Your task to perform on an android device: open app "DoorDash - Food Delivery" Image 0: 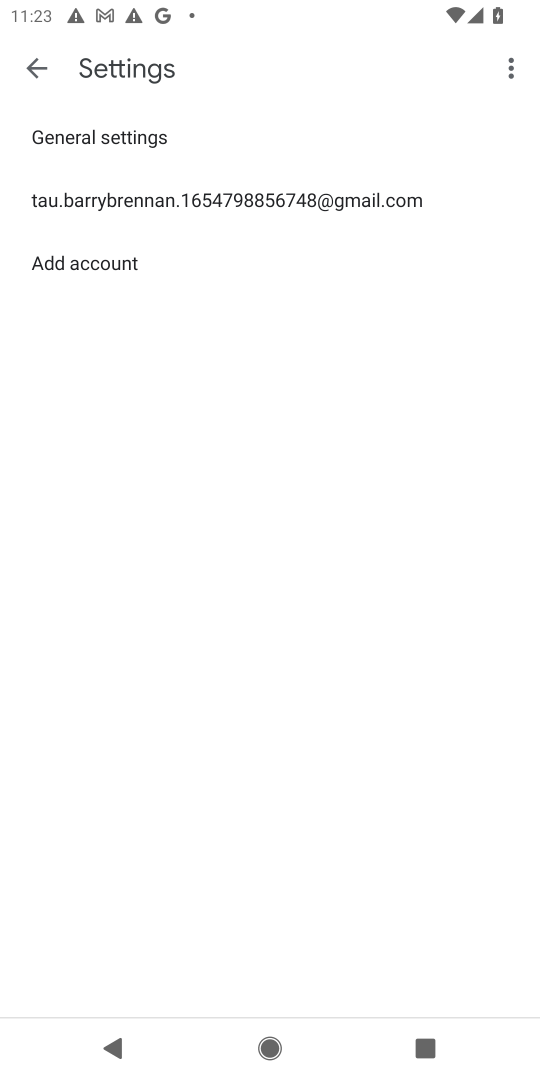
Step 0: press home button
Your task to perform on an android device: open app "DoorDash - Food Delivery" Image 1: 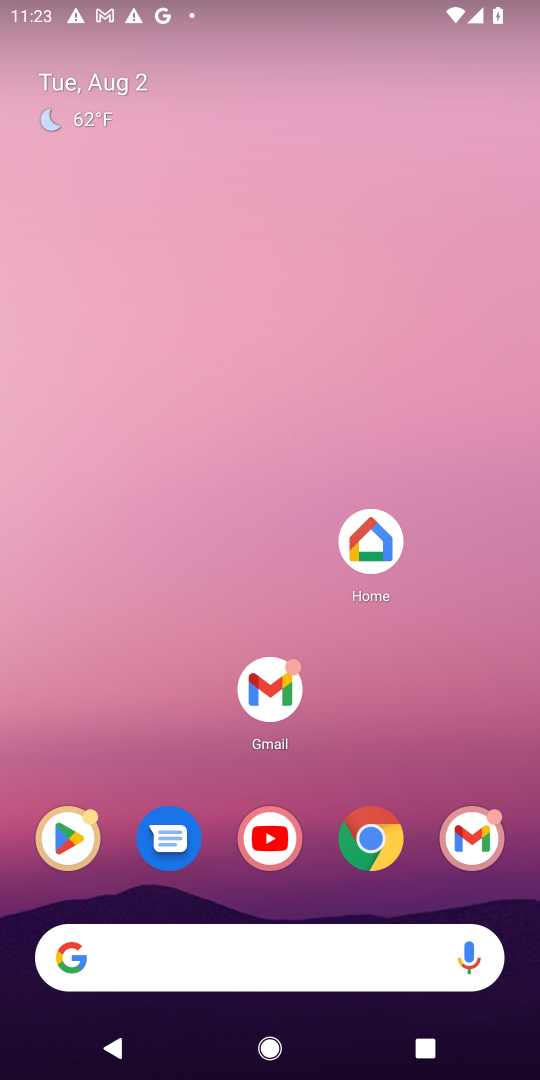
Step 1: drag from (399, 743) to (427, 181)
Your task to perform on an android device: open app "DoorDash - Food Delivery" Image 2: 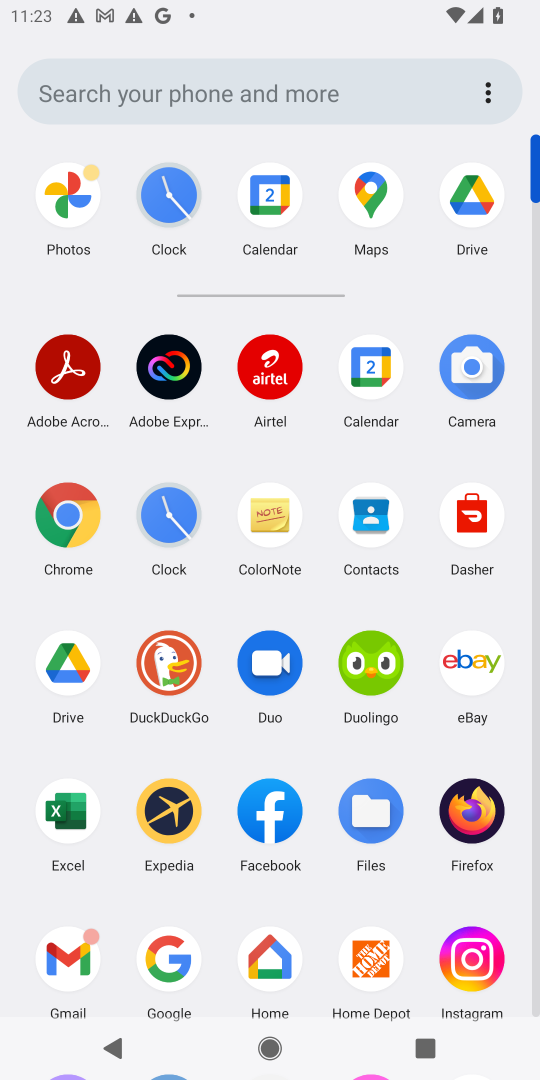
Step 2: drag from (407, 881) to (414, 555)
Your task to perform on an android device: open app "DoorDash - Food Delivery" Image 3: 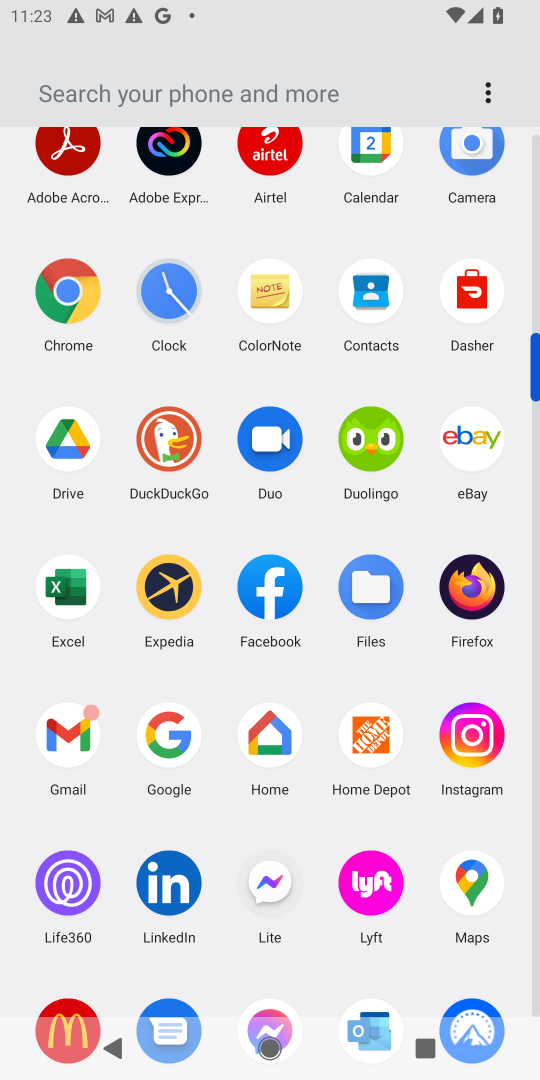
Step 3: drag from (413, 940) to (413, 604)
Your task to perform on an android device: open app "DoorDash - Food Delivery" Image 4: 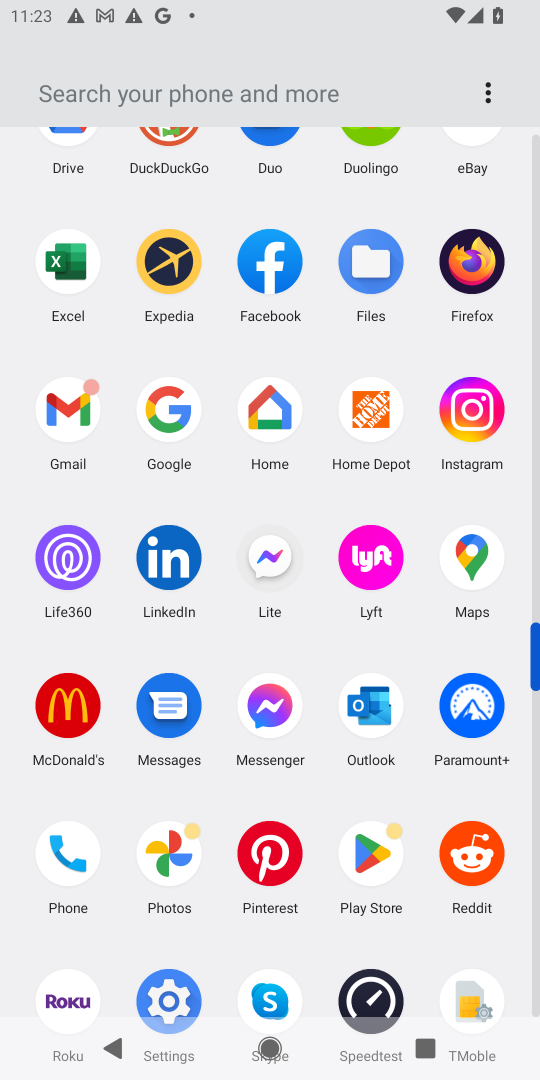
Step 4: click (369, 850)
Your task to perform on an android device: open app "DoorDash - Food Delivery" Image 5: 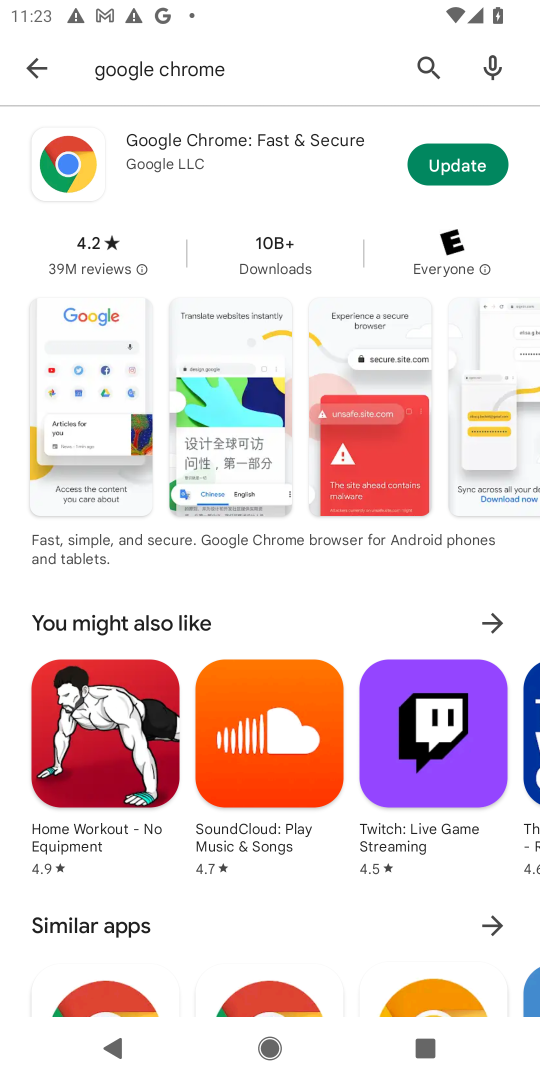
Step 5: click (423, 57)
Your task to perform on an android device: open app "DoorDash - Food Delivery" Image 6: 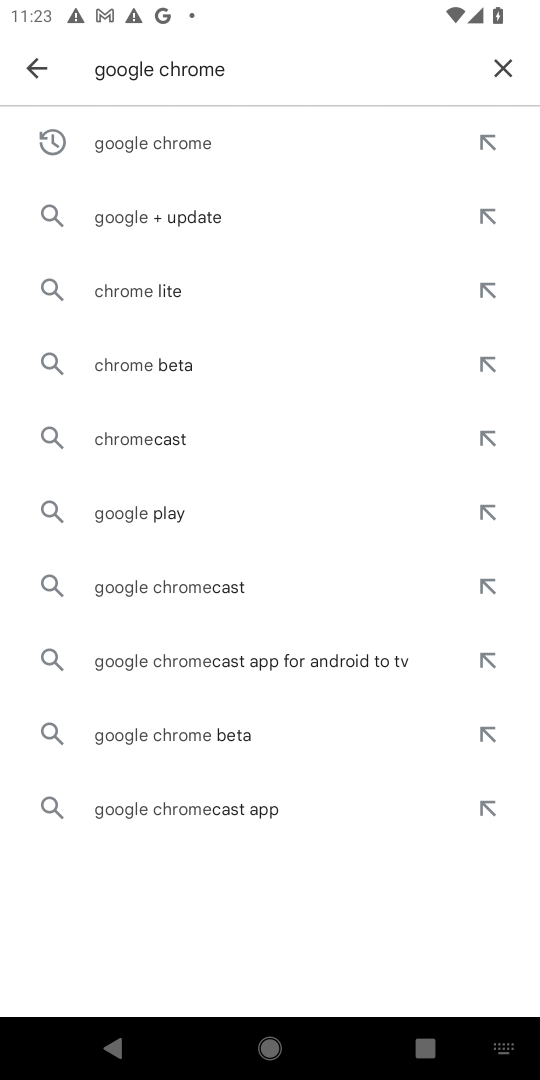
Step 6: click (497, 69)
Your task to perform on an android device: open app "DoorDash - Food Delivery" Image 7: 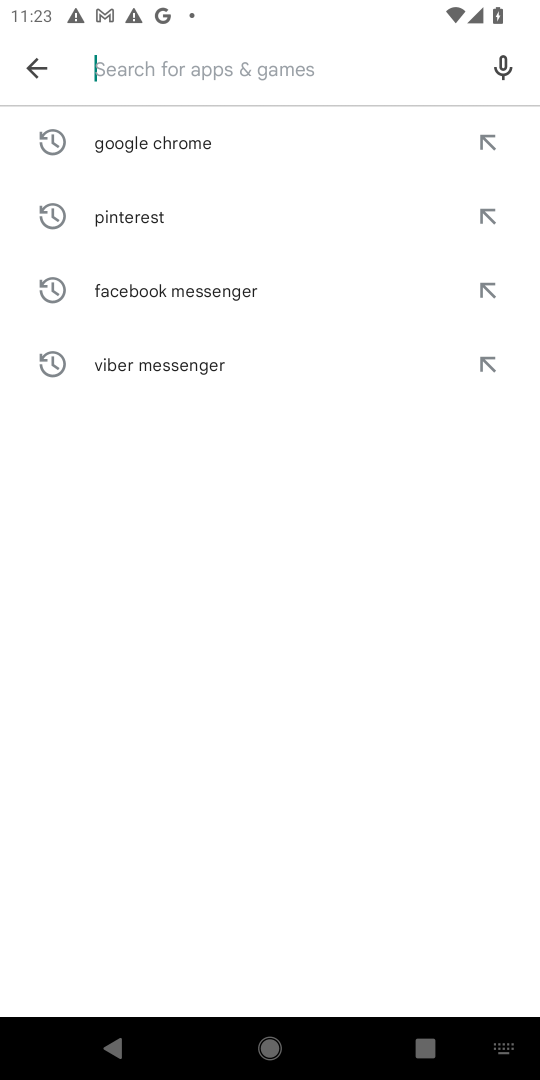
Step 7: click (344, 68)
Your task to perform on an android device: open app "DoorDash - Food Delivery" Image 8: 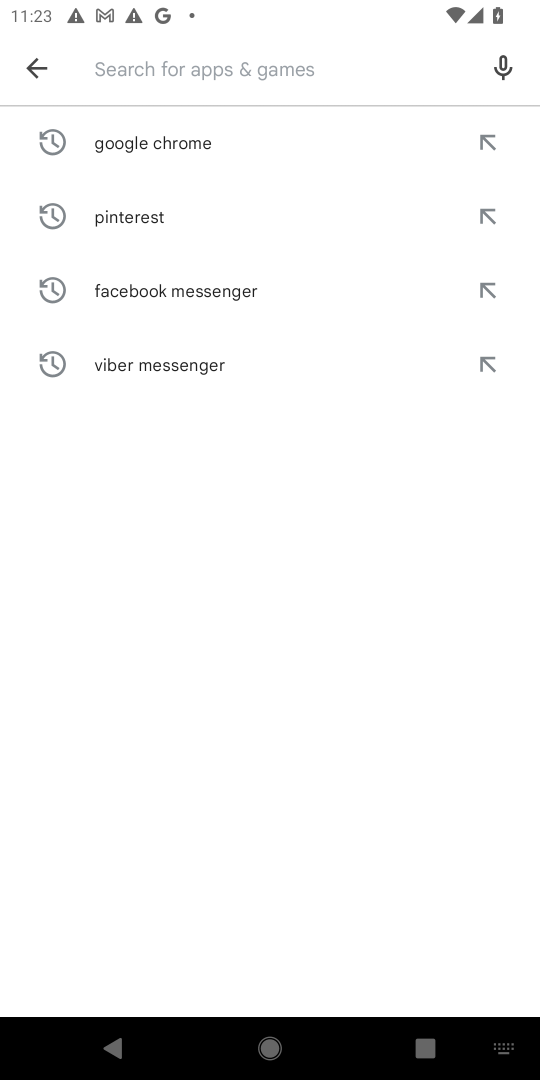
Step 8: type "doordash food delivery"
Your task to perform on an android device: open app "DoorDash - Food Delivery" Image 9: 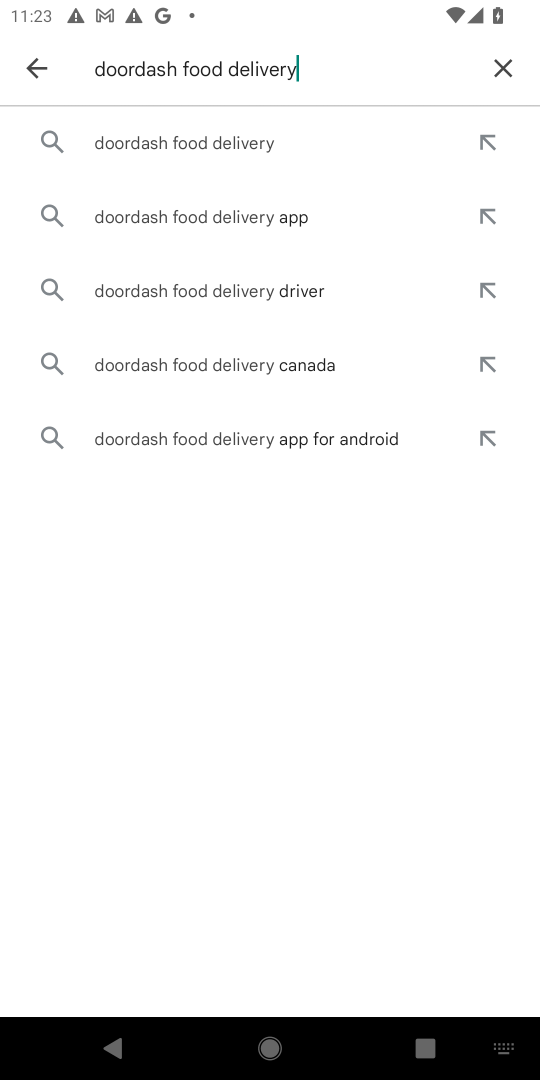
Step 9: click (301, 146)
Your task to perform on an android device: open app "DoorDash - Food Delivery" Image 10: 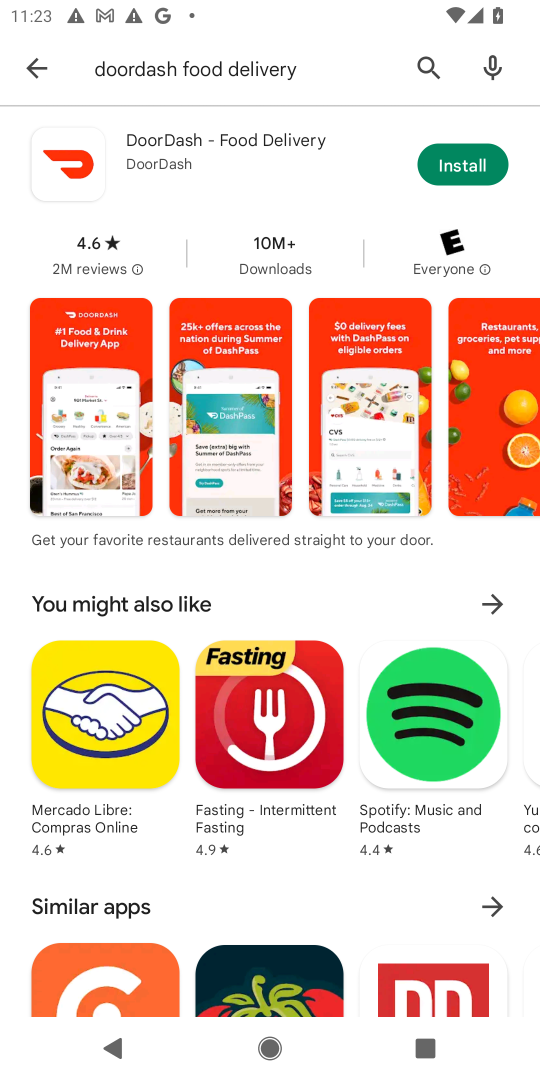
Step 10: task complete